Your task to perform on an android device: Open Google Chrome Image 0: 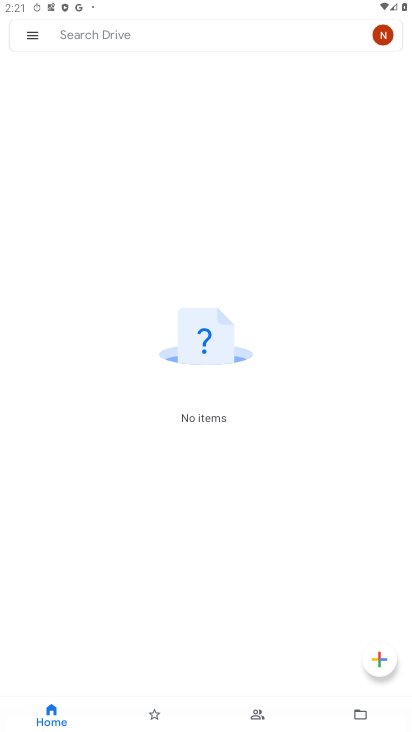
Step 0: press home button
Your task to perform on an android device: Open Google Chrome Image 1: 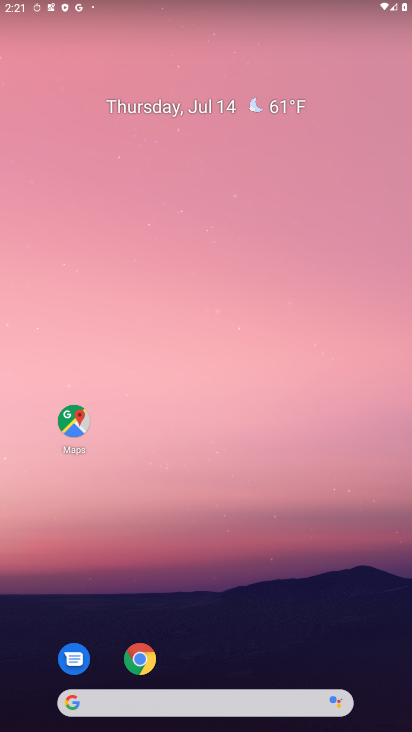
Step 1: click (146, 665)
Your task to perform on an android device: Open Google Chrome Image 2: 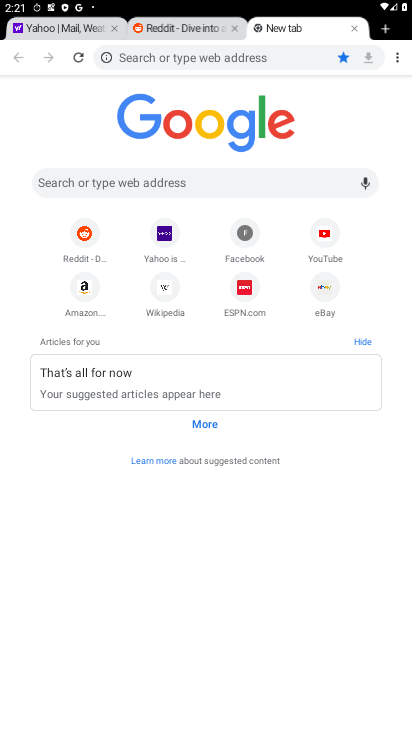
Step 2: task complete